Your task to perform on an android device: Open the calendar app, open the side menu, and click the "Day" option Image 0: 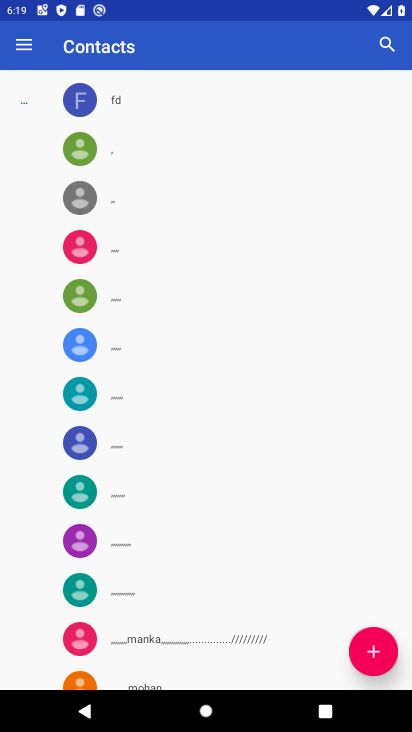
Step 0: press home button
Your task to perform on an android device: Open the calendar app, open the side menu, and click the "Day" option Image 1: 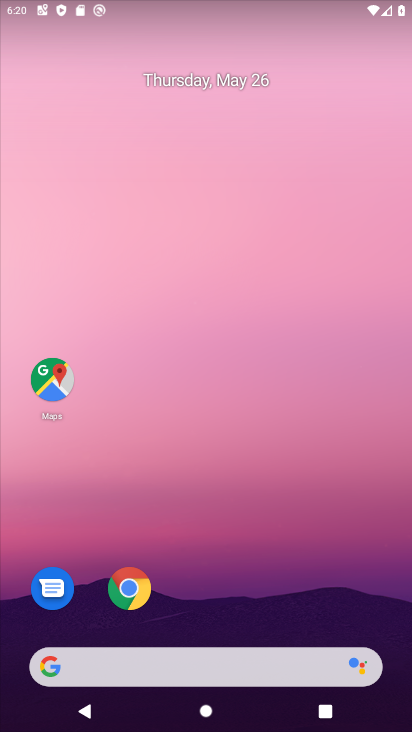
Step 1: drag from (280, 558) to (412, 183)
Your task to perform on an android device: Open the calendar app, open the side menu, and click the "Day" option Image 2: 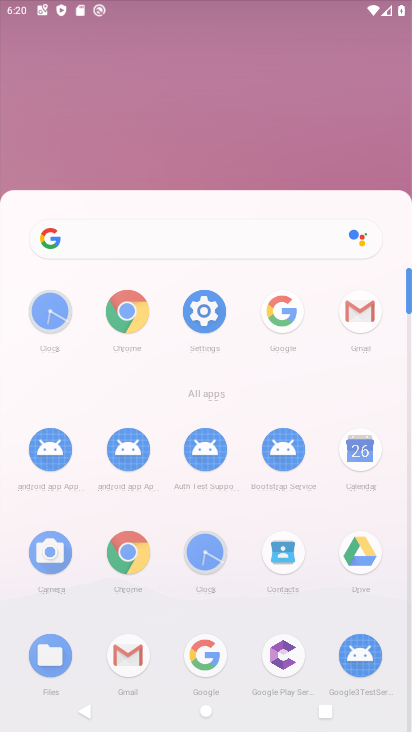
Step 2: drag from (404, 245) to (410, 372)
Your task to perform on an android device: Open the calendar app, open the side menu, and click the "Day" option Image 3: 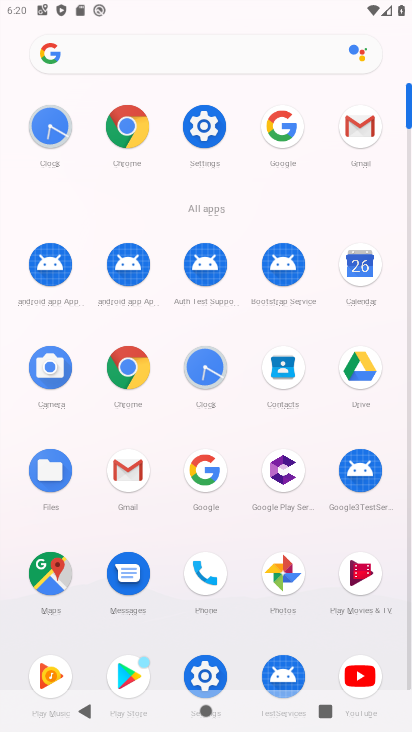
Step 3: click (364, 263)
Your task to perform on an android device: Open the calendar app, open the side menu, and click the "Day" option Image 4: 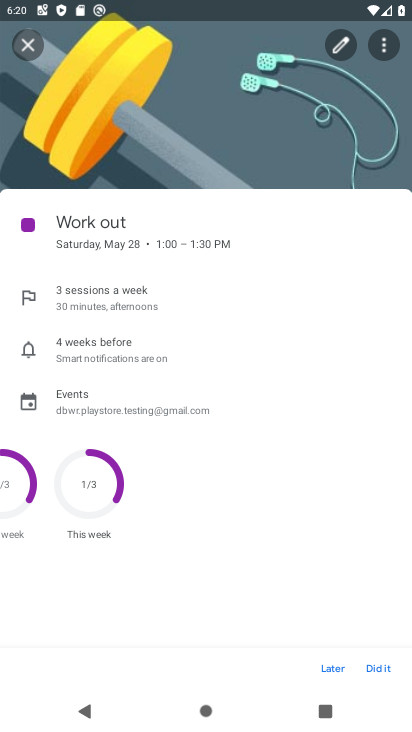
Step 4: press back button
Your task to perform on an android device: Open the calendar app, open the side menu, and click the "Day" option Image 5: 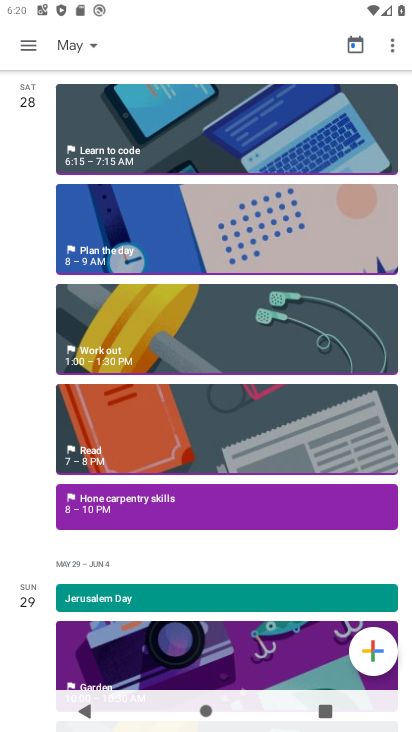
Step 5: click (24, 44)
Your task to perform on an android device: Open the calendar app, open the side menu, and click the "Day" option Image 6: 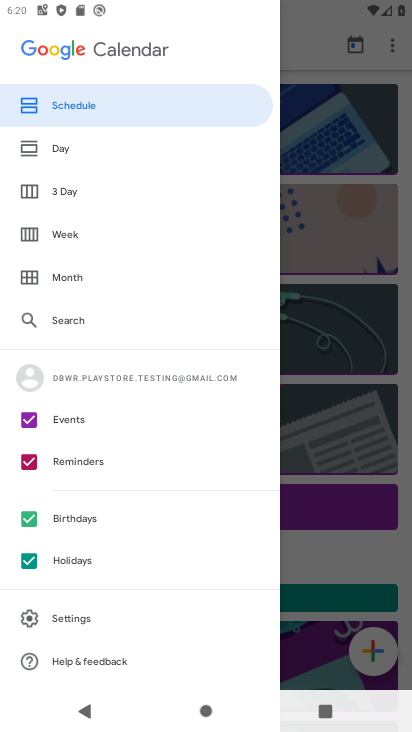
Step 6: click (36, 154)
Your task to perform on an android device: Open the calendar app, open the side menu, and click the "Day" option Image 7: 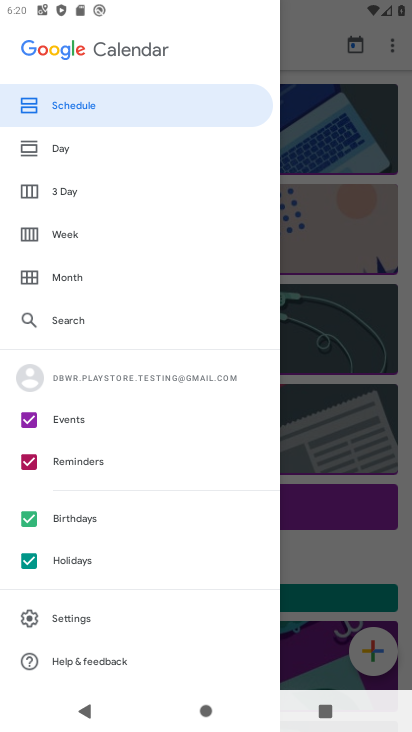
Step 7: click (69, 154)
Your task to perform on an android device: Open the calendar app, open the side menu, and click the "Day" option Image 8: 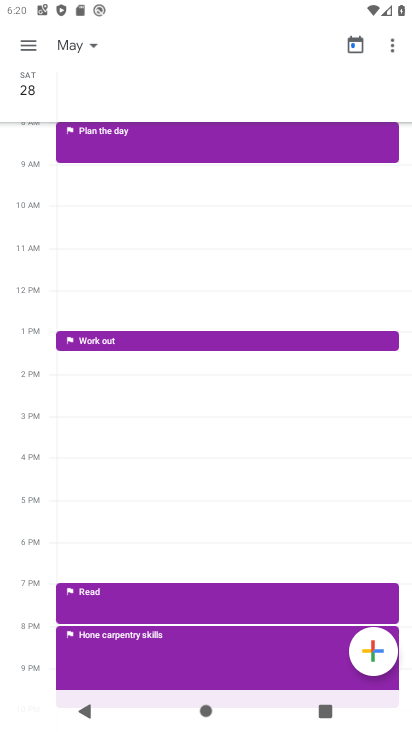
Step 8: task complete